Your task to perform on an android device: Find coffee shops on Maps Image 0: 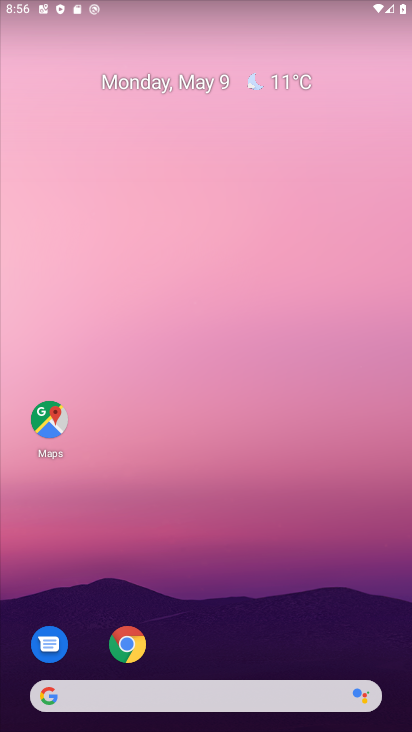
Step 0: click (39, 415)
Your task to perform on an android device: Find coffee shops on Maps Image 1: 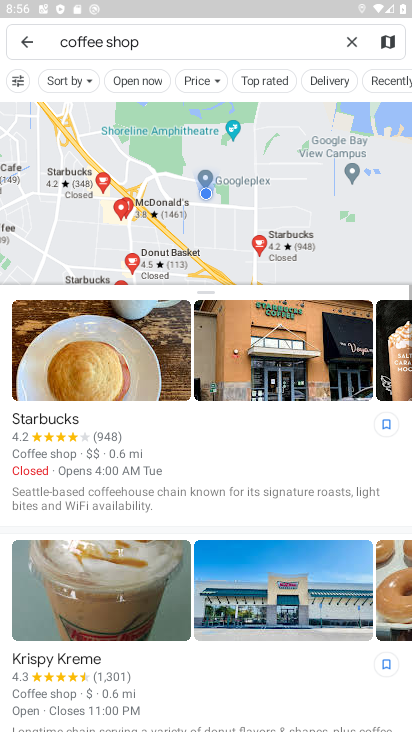
Step 1: task complete